Your task to perform on an android device: Open the map Image 0: 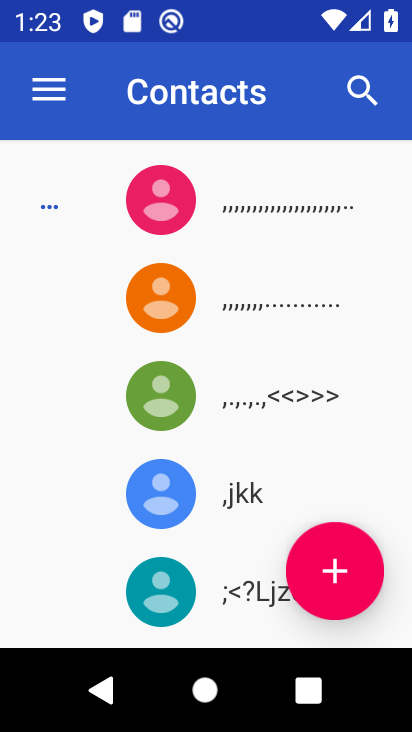
Step 0: press home button
Your task to perform on an android device: Open the map Image 1: 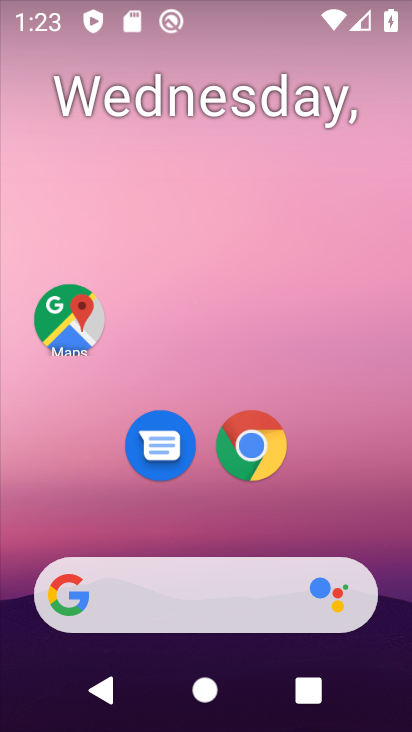
Step 1: click (70, 320)
Your task to perform on an android device: Open the map Image 2: 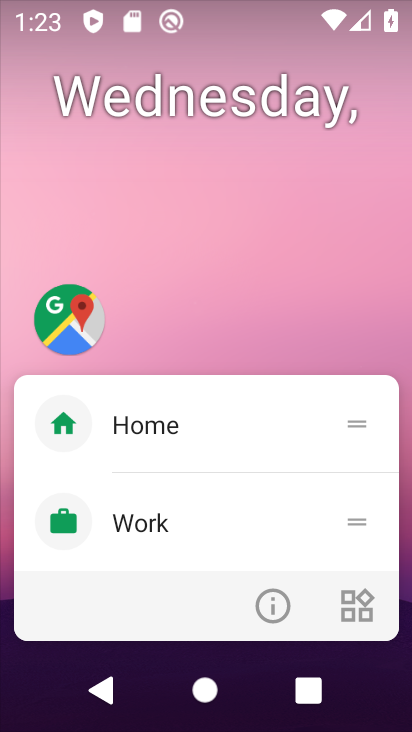
Step 2: click (70, 320)
Your task to perform on an android device: Open the map Image 3: 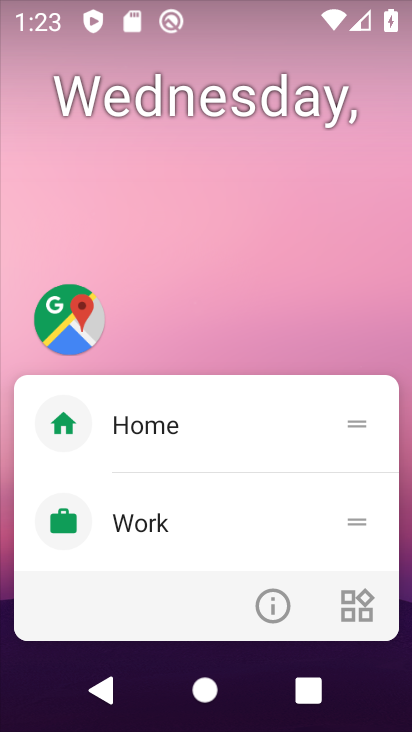
Step 3: click (70, 320)
Your task to perform on an android device: Open the map Image 4: 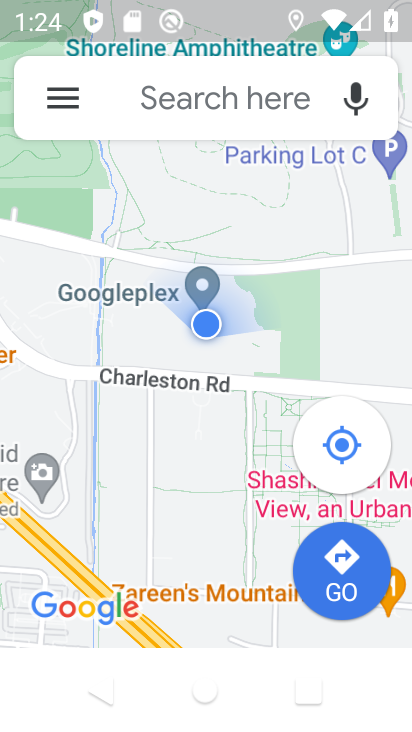
Step 4: task complete